Your task to perform on an android device: check out phone information Image 0: 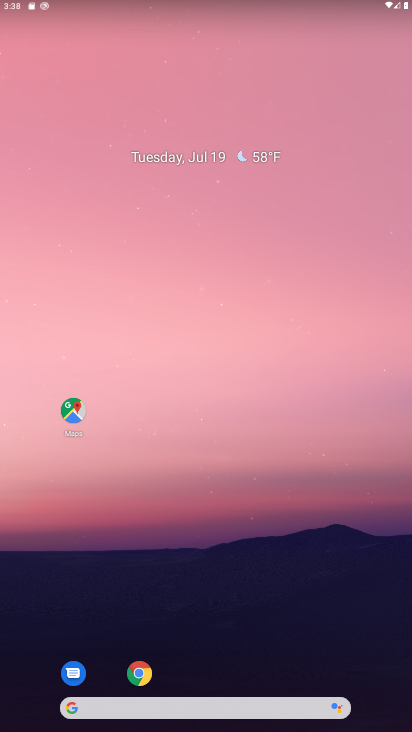
Step 0: drag from (170, 704) to (303, 30)
Your task to perform on an android device: check out phone information Image 1: 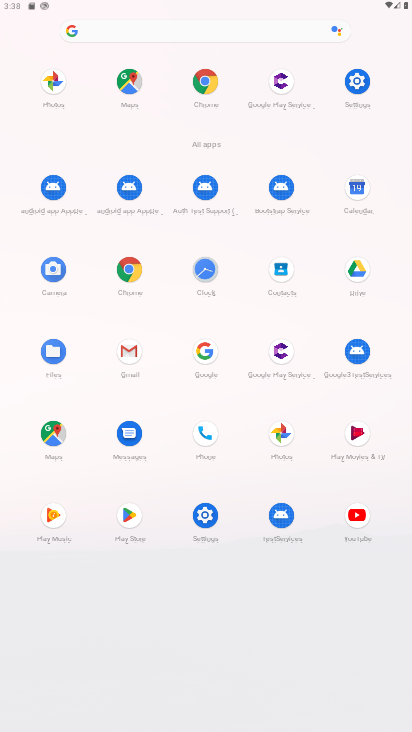
Step 1: click (356, 88)
Your task to perform on an android device: check out phone information Image 2: 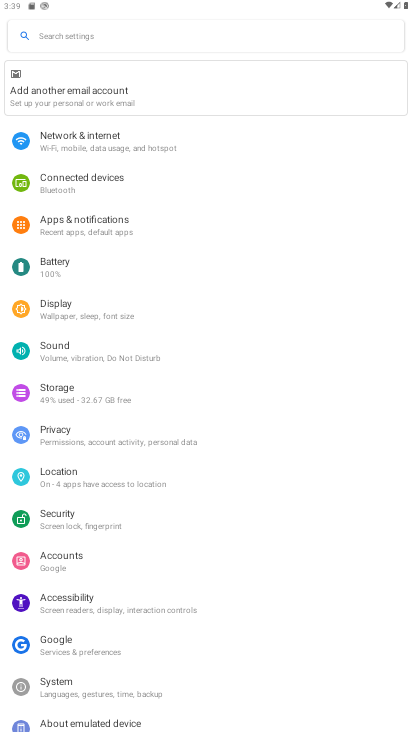
Step 2: drag from (188, 647) to (200, 233)
Your task to perform on an android device: check out phone information Image 3: 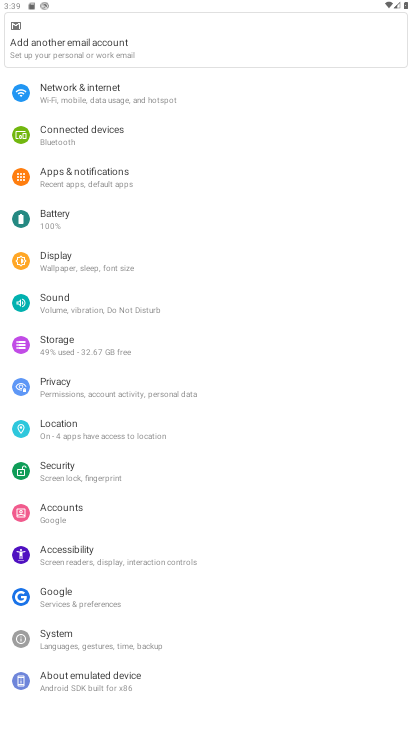
Step 3: click (126, 685)
Your task to perform on an android device: check out phone information Image 4: 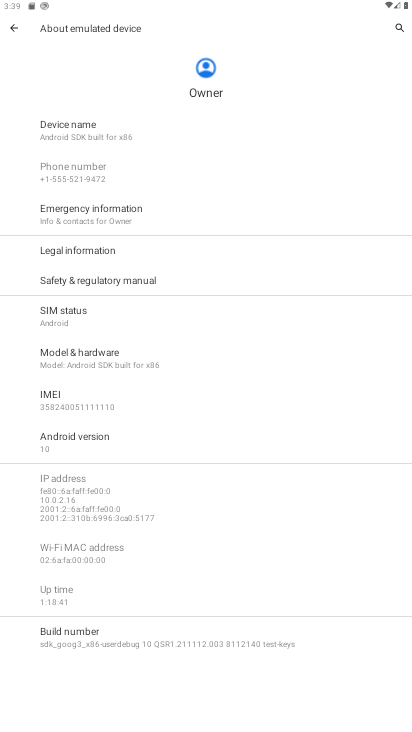
Step 4: task complete